Your task to perform on an android device: Open Youtube and go to "Your channel" Image 0: 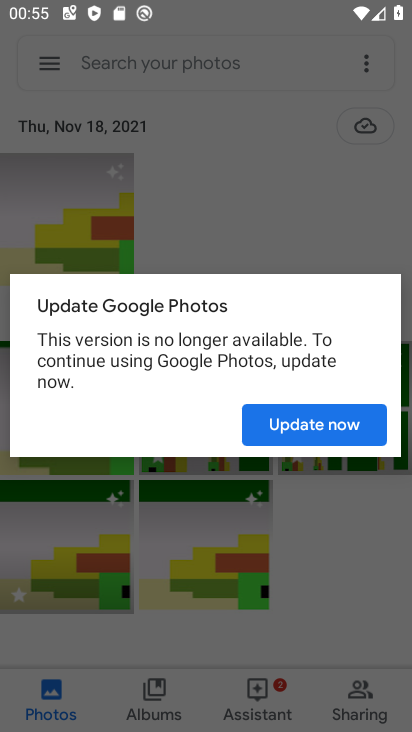
Step 0: press back button
Your task to perform on an android device: Open Youtube and go to "Your channel" Image 1: 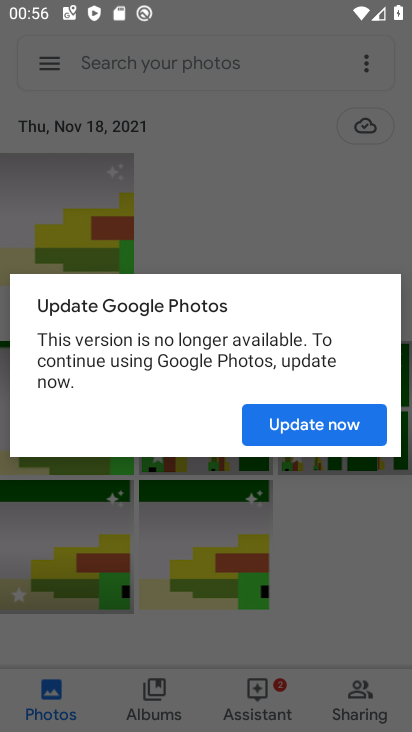
Step 1: press home button
Your task to perform on an android device: Open Youtube and go to "Your channel" Image 2: 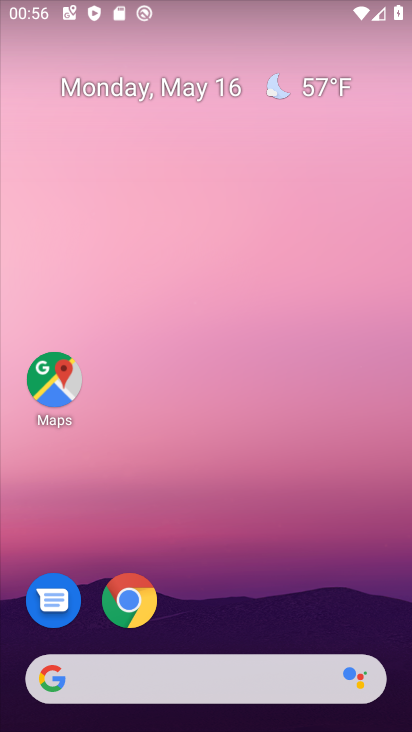
Step 2: drag from (205, 606) to (290, 92)
Your task to perform on an android device: Open Youtube and go to "Your channel" Image 3: 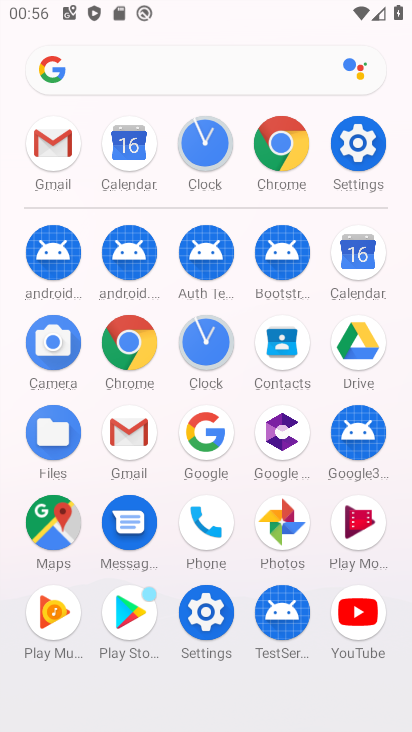
Step 3: click (352, 613)
Your task to perform on an android device: Open Youtube and go to "Your channel" Image 4: 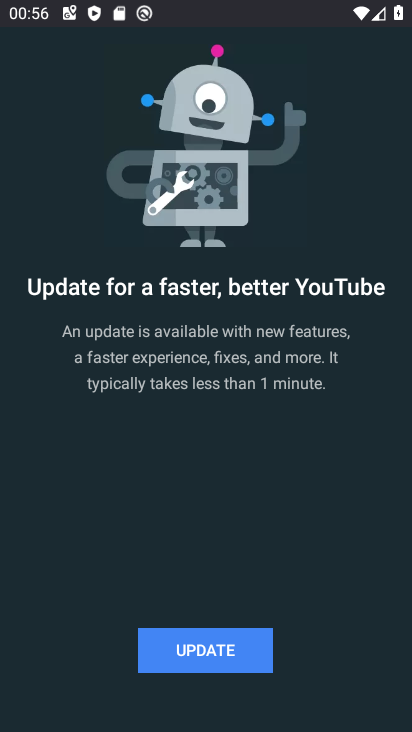
Step 4: click (223, 675)
Your task to perform on an android device: Open Youtube and go to "Your channel" Image 5: 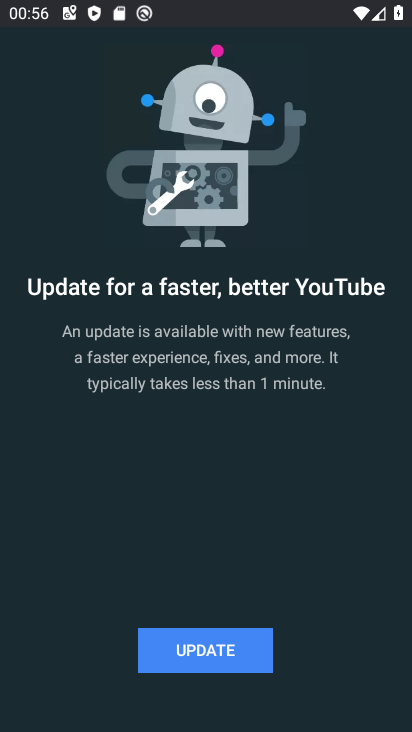
Step 5: click (210, 654)
Your task to perform on an android device: Open Youtube and go to "Your channel" Image 6: 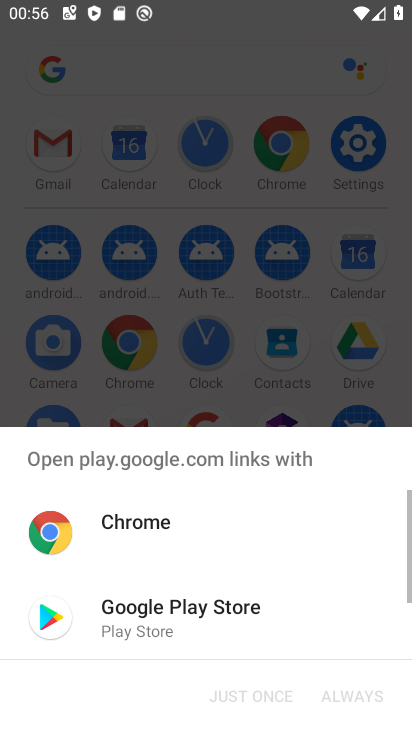
Step 6: click (206, 620)
Your task to perform on an android device: Open Youtube and go to "Your channel" Image 7: 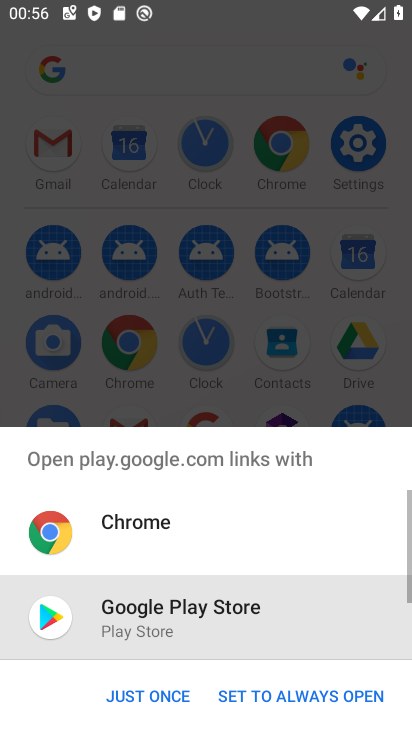
Step 7: click (177, 675)
Your task to perform on an android device: Open Youtube and go to "Your channel" Image 8: 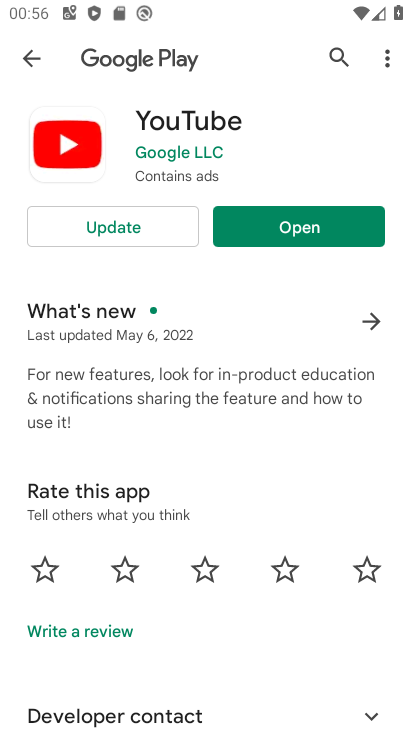
Step 8: click (118, 224)
Your task to perform on an android device: Open Youtube and go to "Your channel" Image 9: 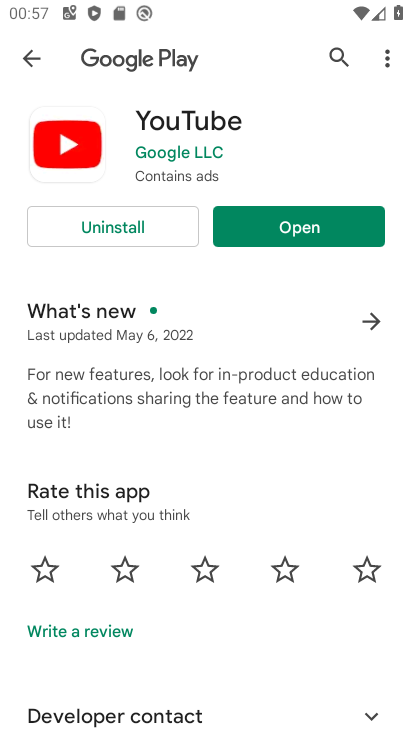
Step 9: click (301, 220)
Your task to perform on an android device: Open Youtube and go to "Your channel" Image 10: 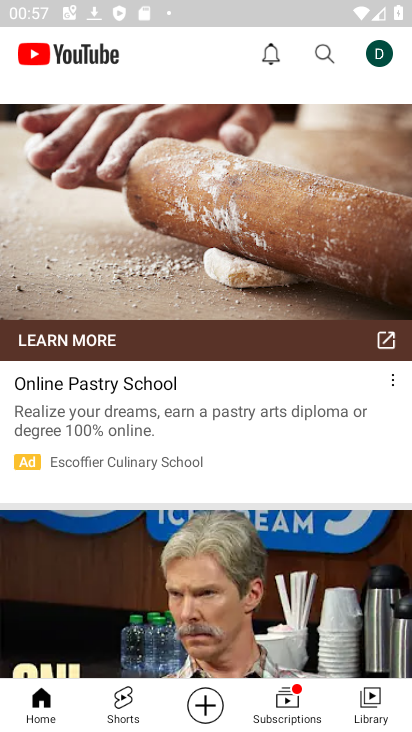
Step 10: click (377, 44)
Your task to perform on an android device: Open Youtube and go to "Your channel" Image 11: 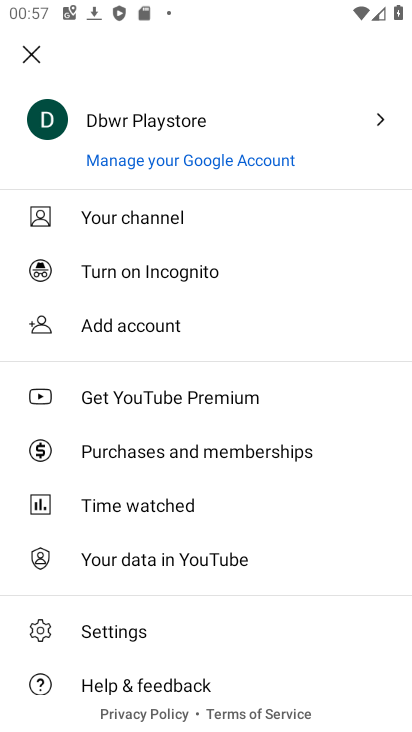
Step 11: click (161, 223)
Your task to perform on an android device: Open Youtube and go to "Your channel" Image 12: 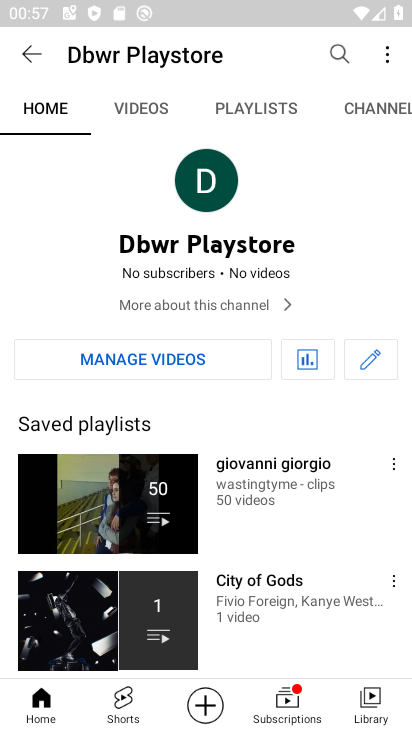
Step 12: task complete